Your task to perform on an android device: Show me popular videos on Youtube Image 0: 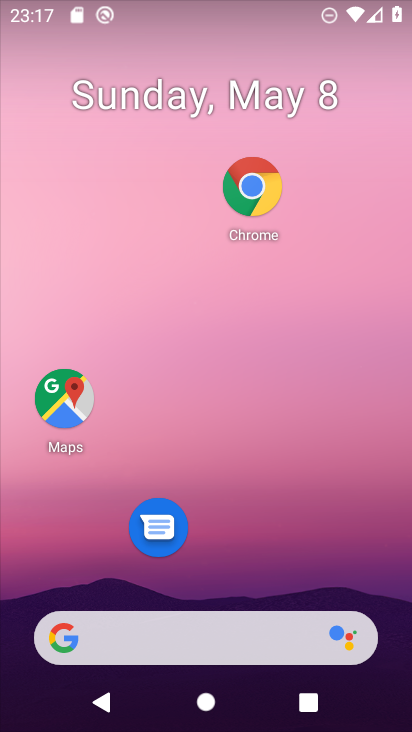
Step 0: drag from (333, 416) to (340, 322)
Your task to perform on an android device: Show me popular videos on Youtube Image 1: 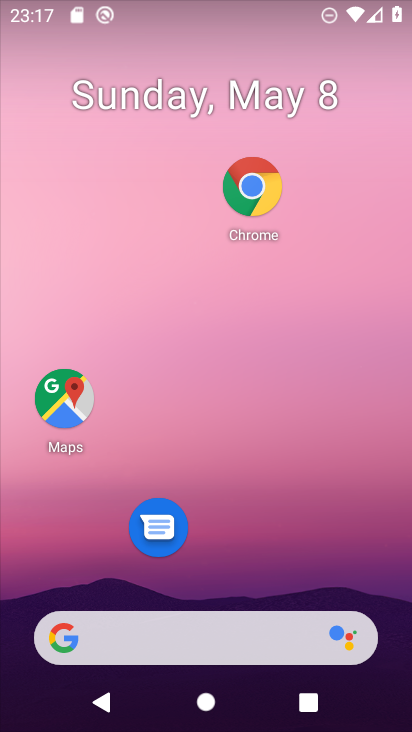
Step 1: drag from (310, 561) to (391, 225)
Your task to perform on an android device: Show me popular videos on Youtube Image 2: 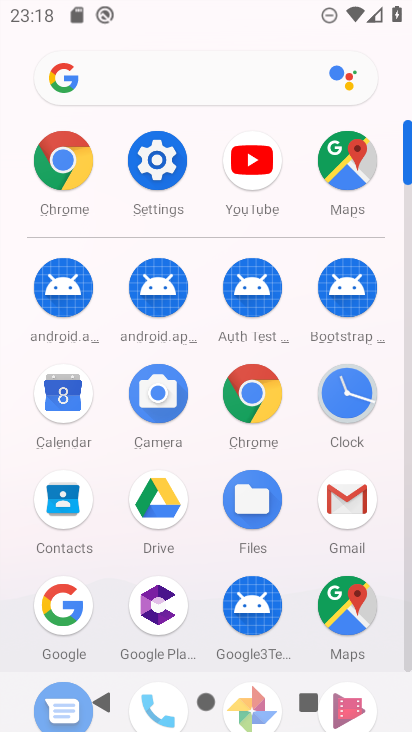
Step 2: click (240, 172)
Your task to perform on an android device: Show me popular videos on Youtube Image 3: 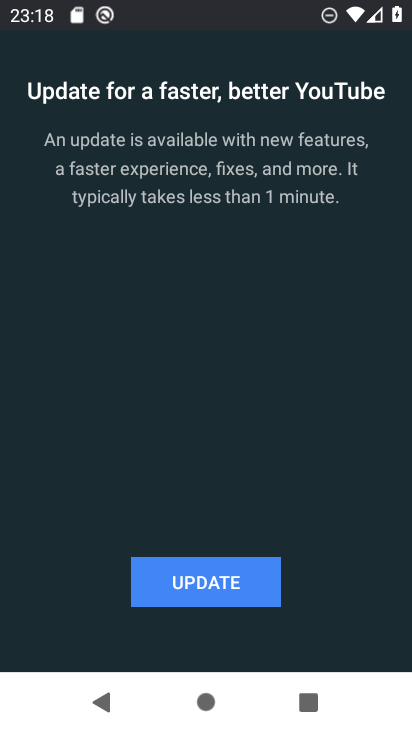
Step 3: task complete